Your task to perform on an android device: turn on airplane mode Image 0: 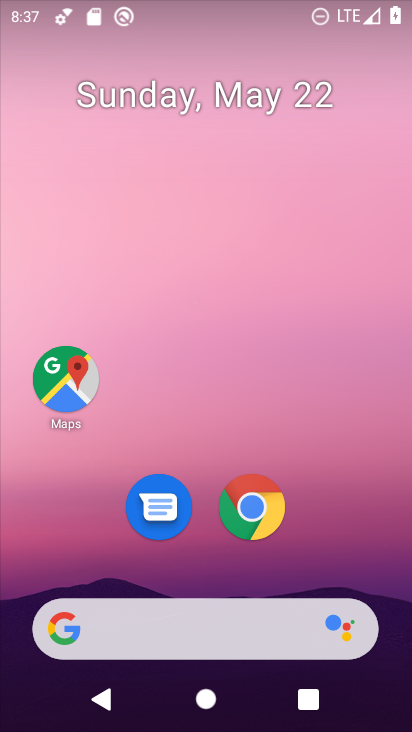
Step 0: drag from (177, 434) to (411, 169)
Your task to perform on an android device: turn on airplane mode Image 1: 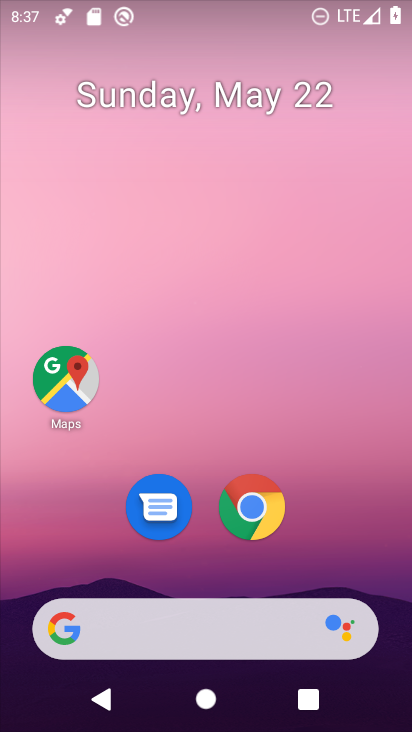
Step 1: drag from (143, 679) to (249, 21)
Your task to perform on an android device: turn on airplane mode Image 2: 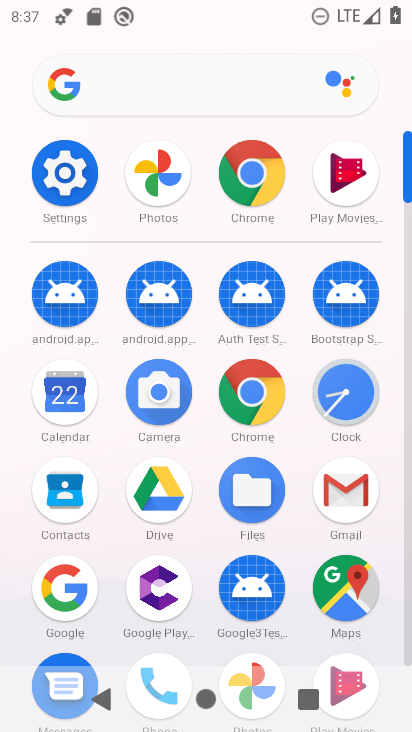
Step 2: click (57, 180)
Your task to perform on an android device: turn on airplane mode Image 3: 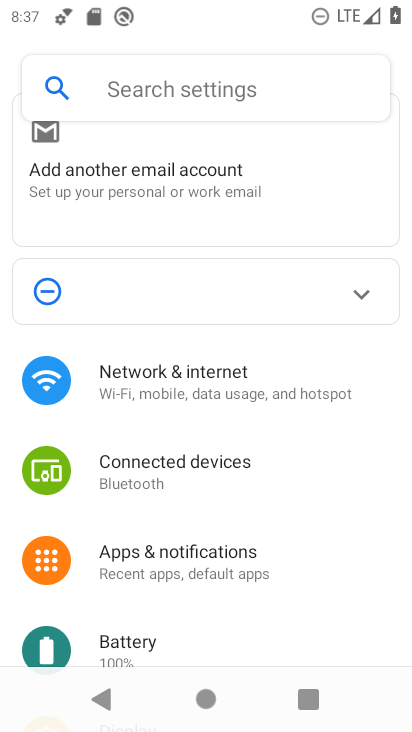
Step 3: click (162, 393)
Your task to perform on an android device: turn on airplane mode Image 4: 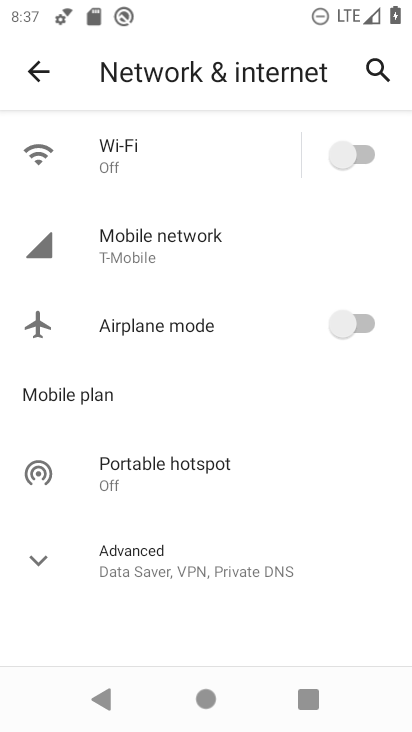
Step 4: click (355, 326)
Your task to perform on an android device: turn on airplane mode Image 5: 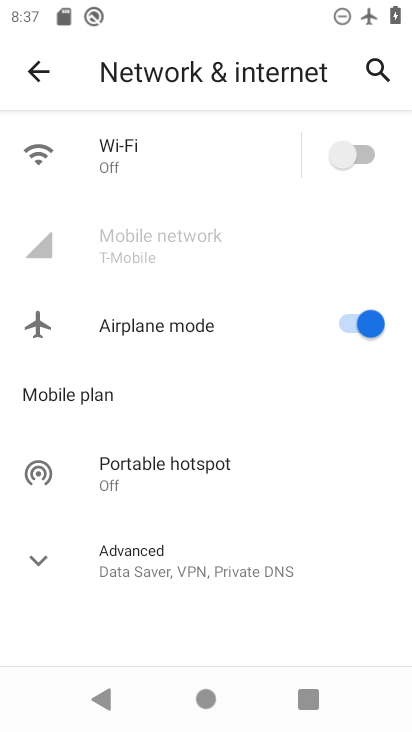
Step 5: task complete